Your task to perform on an android device: Open network settings Image 0: 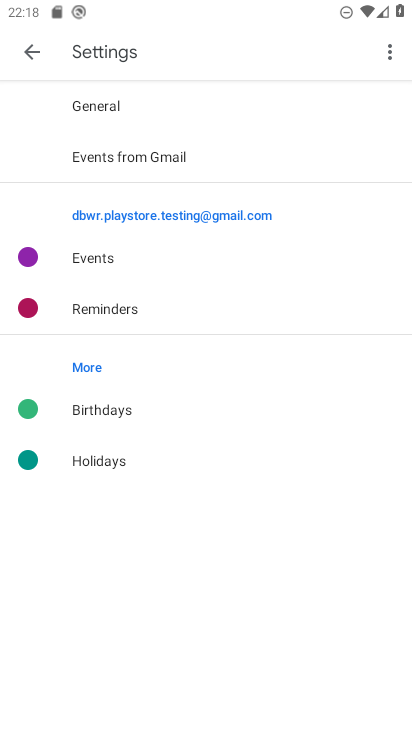
Step 0: press home button
Your task to perform on an android device: Open network settings Image 1: 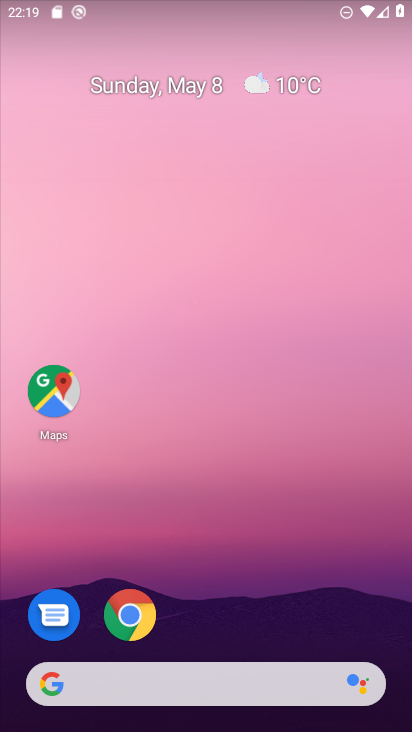
Step 1: drag from (254, 539) to (257, 31)
Your task to perform on an android device: Open network settings Image 2: 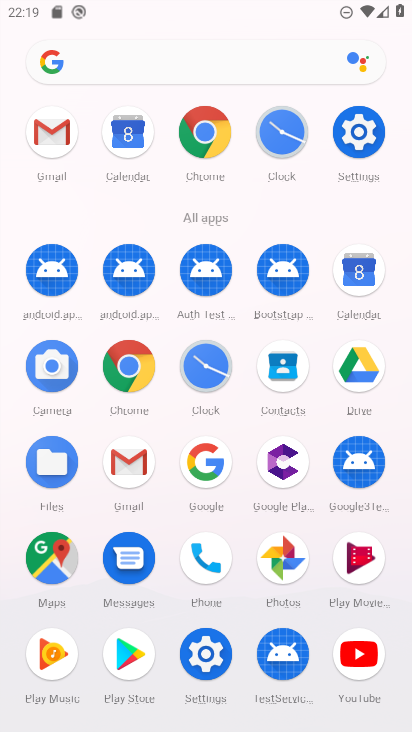
Step 2: click (364, 123)
Your task to perform on an android device: Open network settings Image 3: 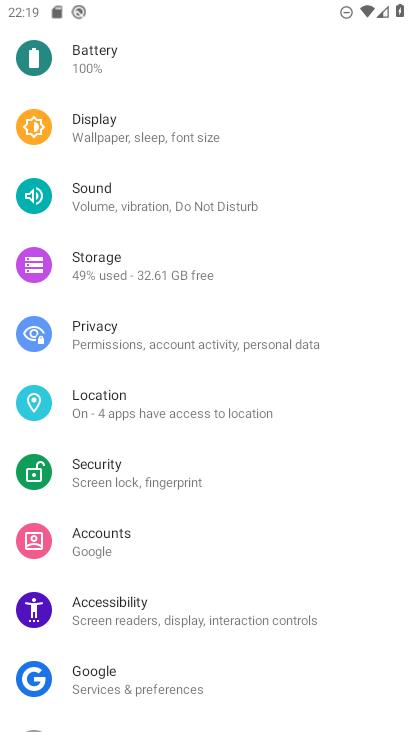
Step 3: drag from (154, 69) to (245, 670)
Your task to perform on an android device: Open network settings Image 4: 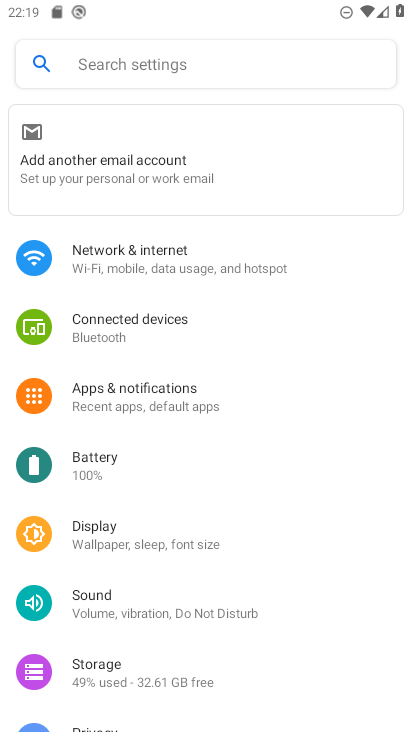
Step 4: click (193, 275)
Your task to perform on an android device: Open network settings Image 5: 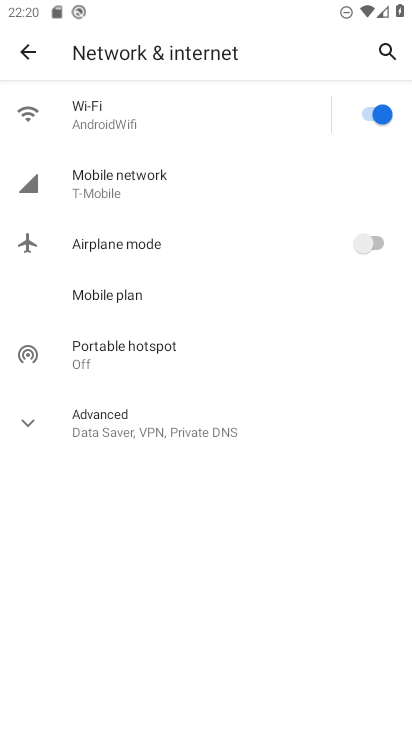
Step 5: click (138, 122)
Your task to perform on an android device: Open network settings Image 6: 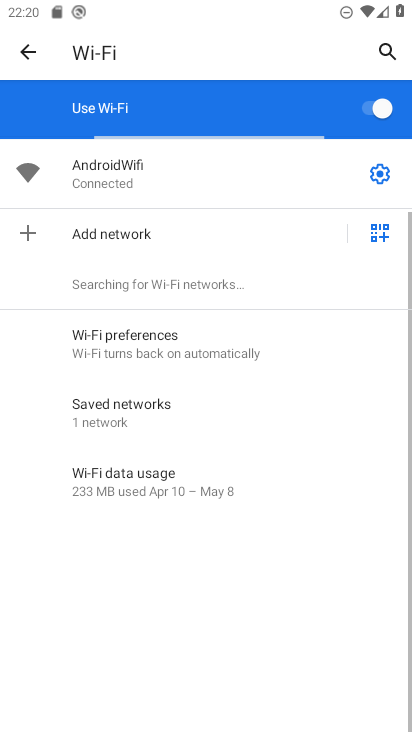
Step 6: click (374, 174)
Your task to perform on an android device: Open network settings Image 7: 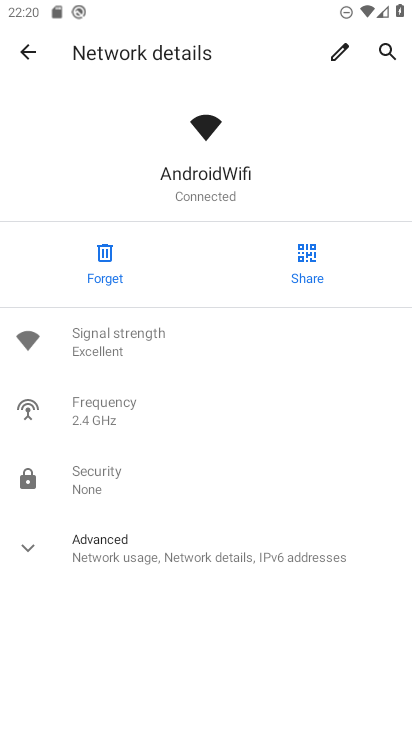
Step 7: task complete